Your task to perform on an android device: Open location settings Image 0: 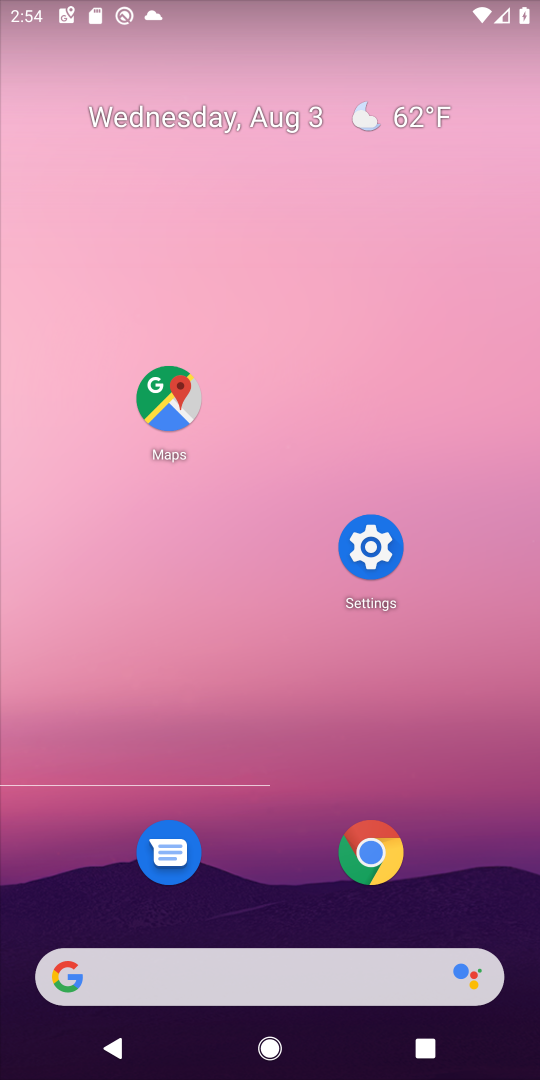
Step 0: press home button
Your task to perform on an android device: Open location settings Image 1: 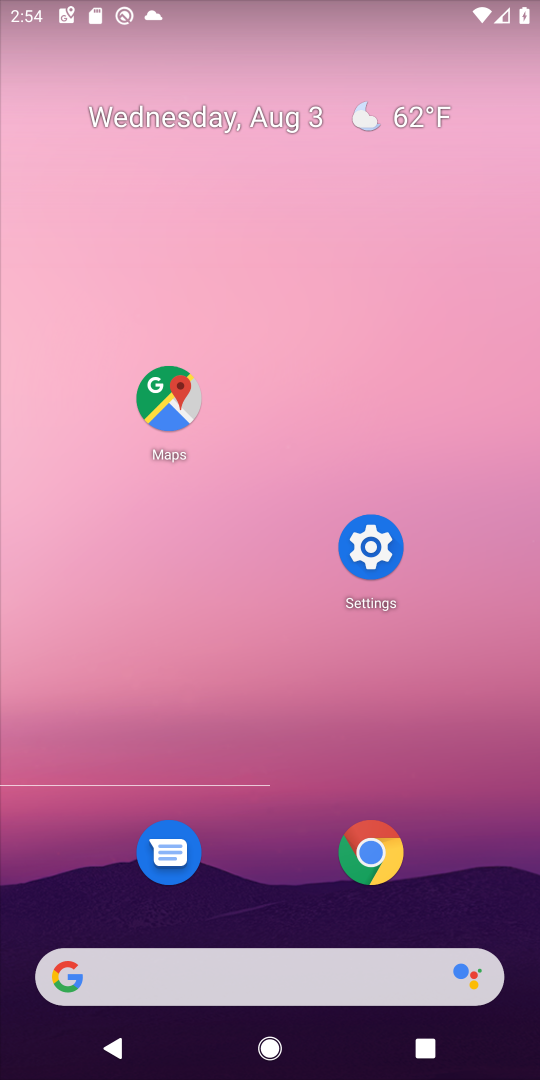
Step 1: drag from (242, 970) to (477, 159)
Your task to perform on an android device: Open location settings Image 2: 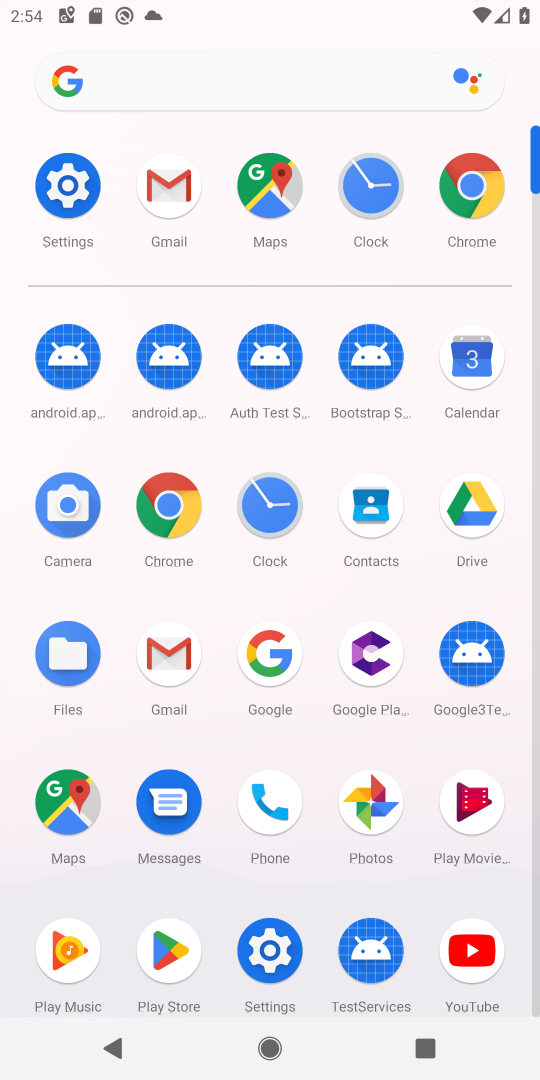
Step 2: click (65, 190)
Your task to perform on an android device: Open location settings Image 3: 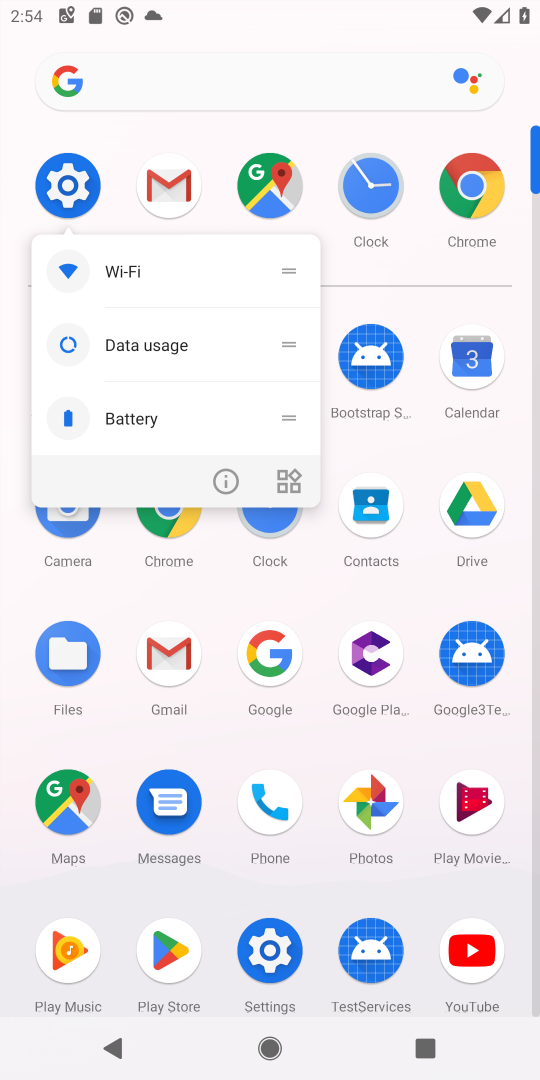
Step 3: click (65, 191)
Your task to perform on an android device: Open location settings Image 4: 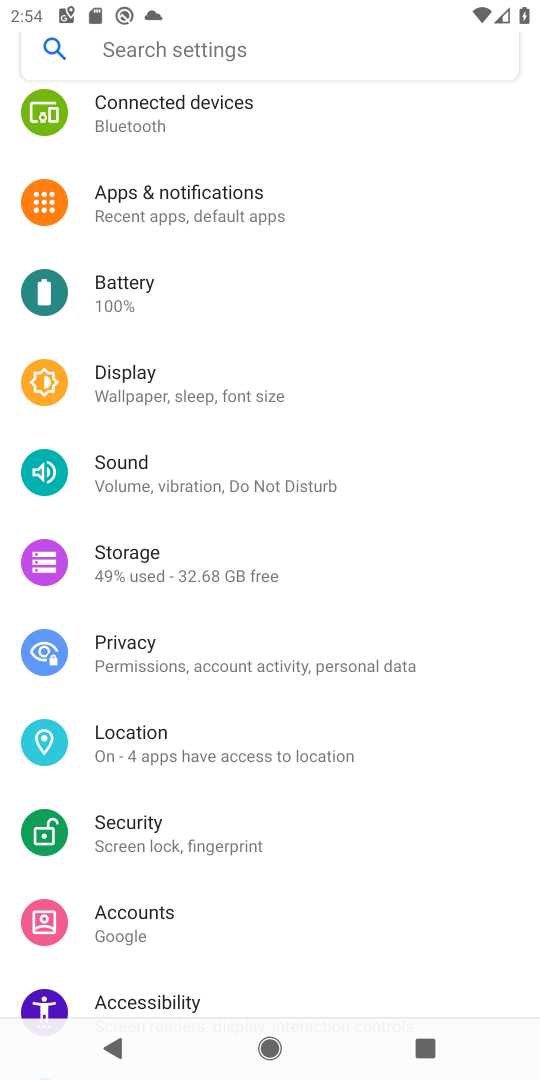
Step 4: click (170, 749)
Your task to perform on an android device: Open location settings Image 5: 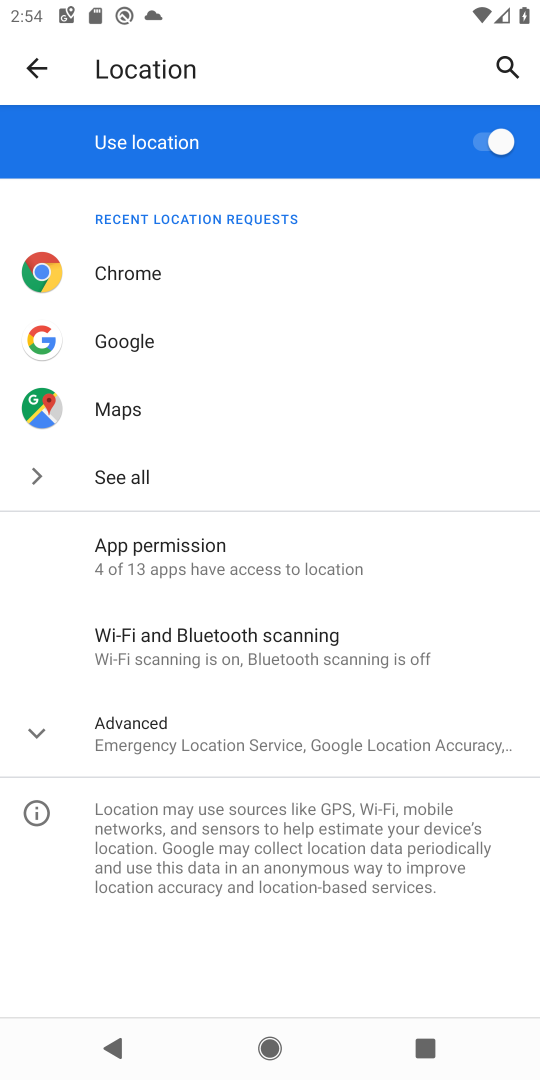
Step 5: task complete